Your task to perform on an android device: Open settings on Google Maps Image 0: 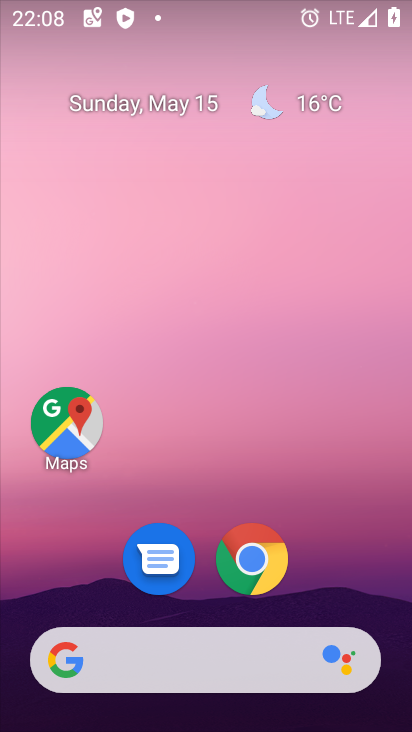
Step 0: drag from (241, 491) to (153, 108)
Your task to perform on an android device: Open settings on Google Maps Image 1: 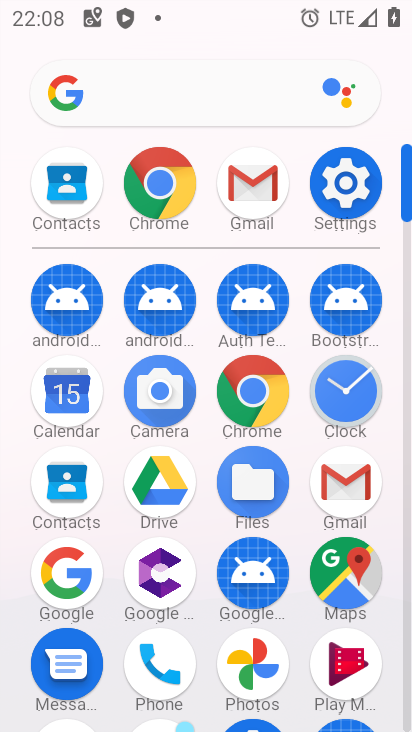
Step 1: click (349, 570)
Your task to perform on an android device: Open settings on Google Maps Image 2: 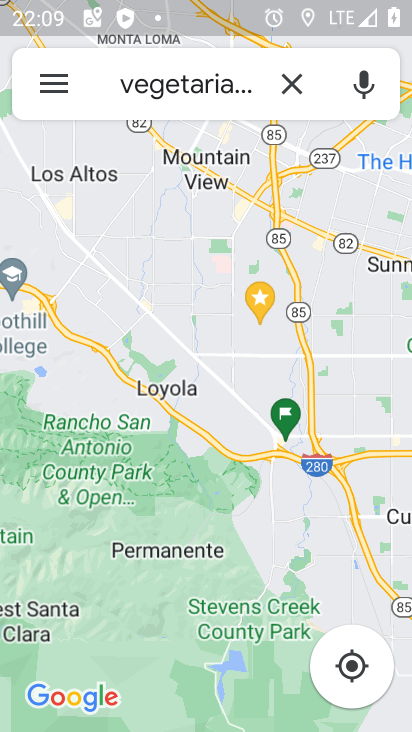
Step 2: task complete